Your task to perform on an android device: change the clock style Image 0: 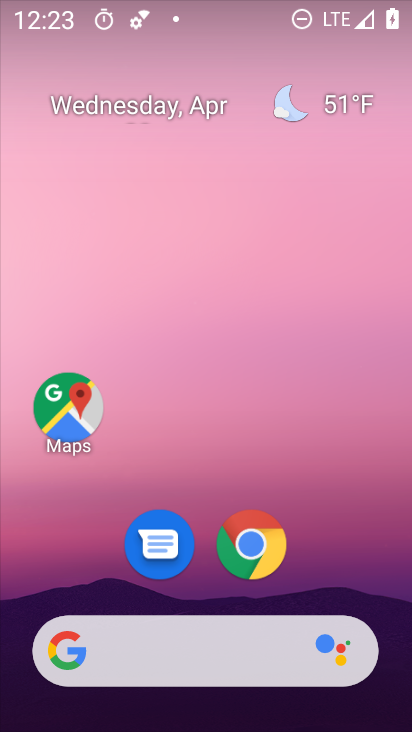
Step 0: drag from (359, 567) to (336, 194)
Your task to perform on an android device: change the clock style Image 1: 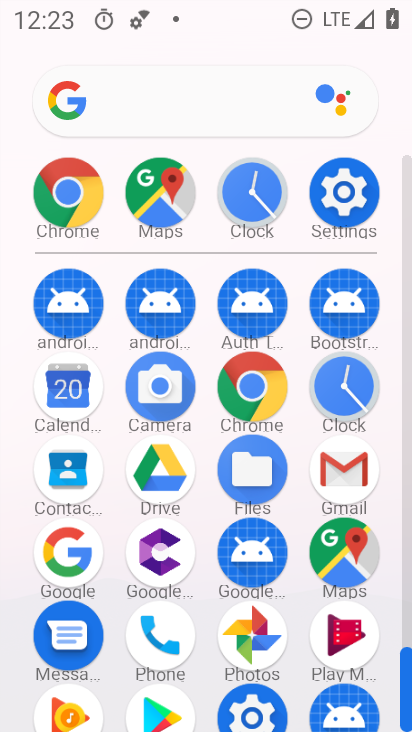
Step 1: click (346, 391)
Your task to perform on an android device: change the clock style Image 2: 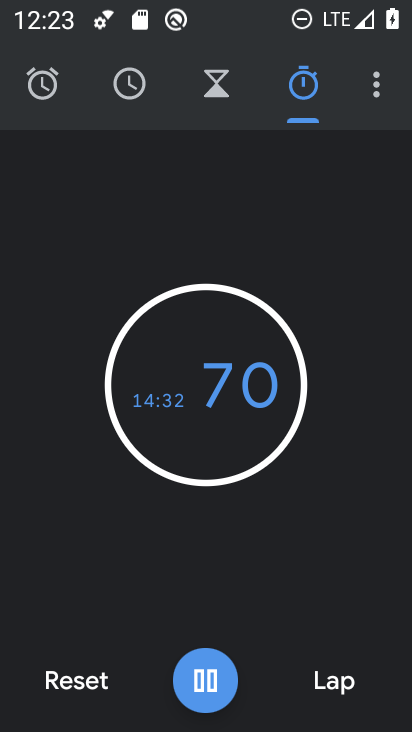
Step 2: click (377, 86)
Your task to perform on an android device: change the clock style Image 3: 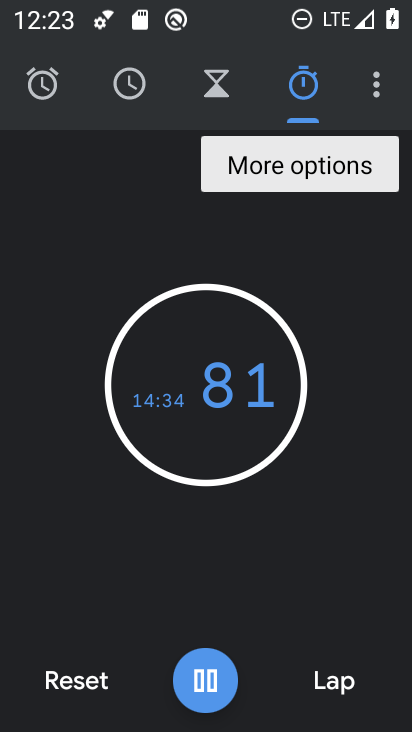
Step 3: click (377, 86)
Your task to perform on an android device: change the clock style Image 4: 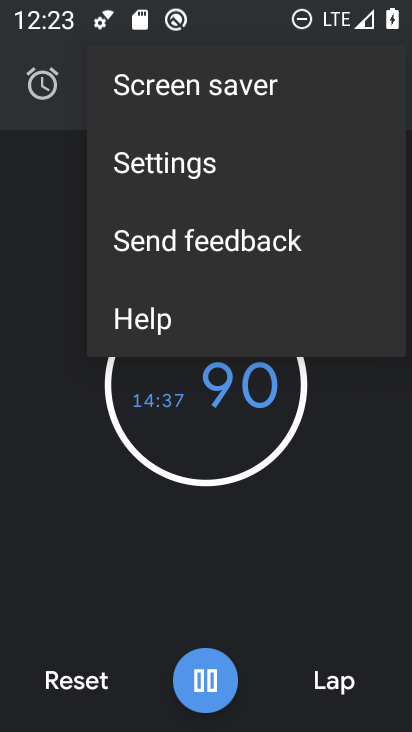
Step 4: click (193, 164)
Your task to perform on an android device: change the clock style Image 5: 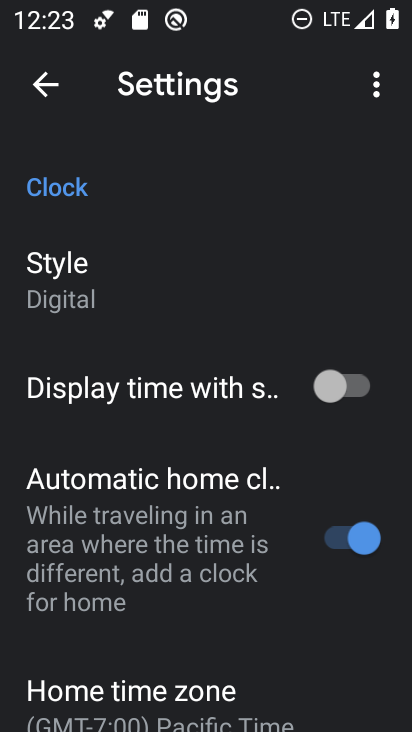
Step 5: drag from (287, 625) to (298, 486)
Your task to perform on an android device: change the clock style Image 6: 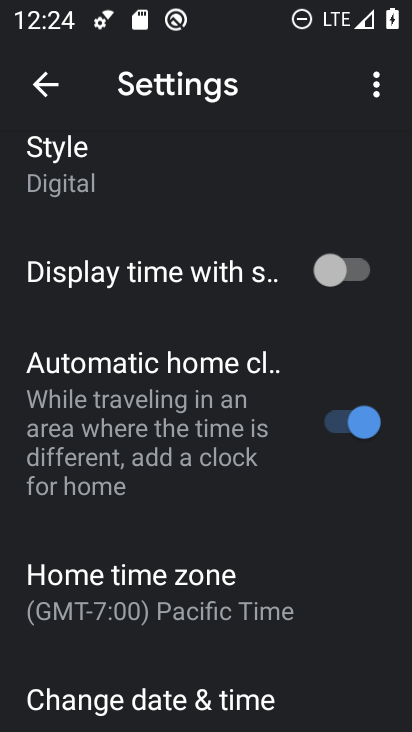
Step 6: drag from (327, 620) to (316, 516)
Your task to perform on an android device: change the clock style Image 7: 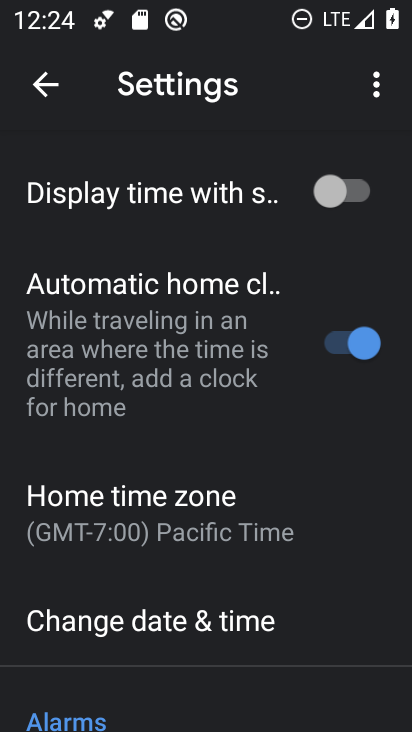
Step 7: drag from (322, 606) to (319, 503)
Your task to perform on an android device: change the clock style Image 8: 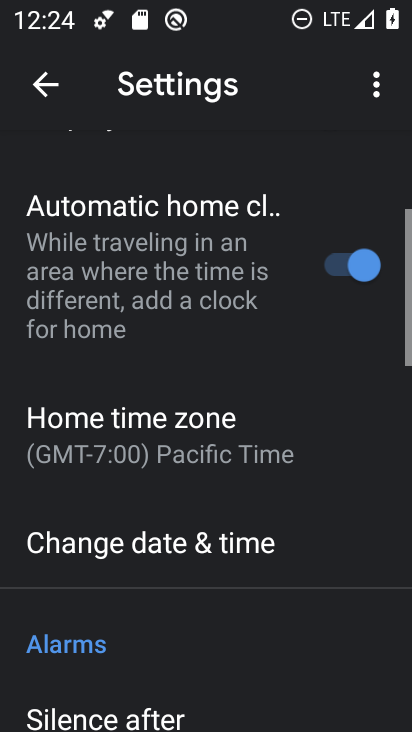
Step 8: drag from (323, 646) to (325, 534)
Your task to perform on an android device: change the clock style Image 9: 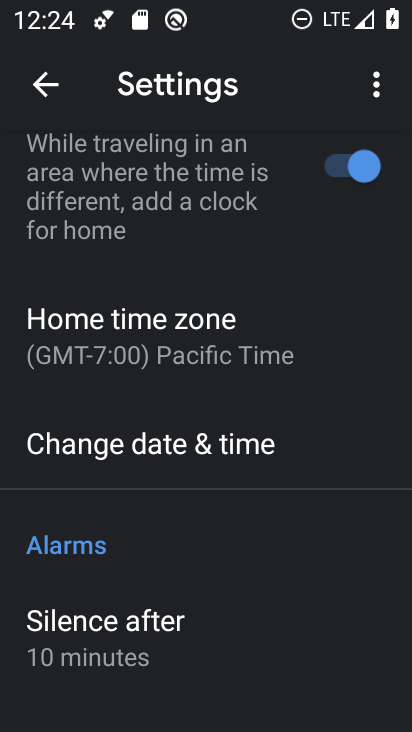
Step 9: drag from (312, 639) to (326, 501)
Your task to perform on an android device: change the clock style Image 10: 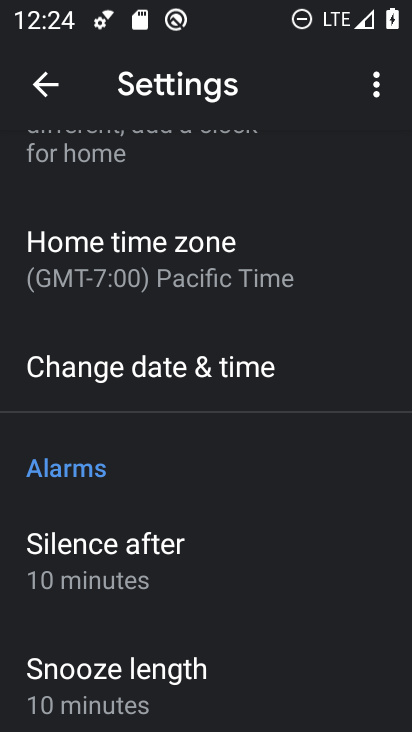
Step 10: drag from (326, 600) to (333, 453)
Your task to perform on an android device: change the clock style Image 11: 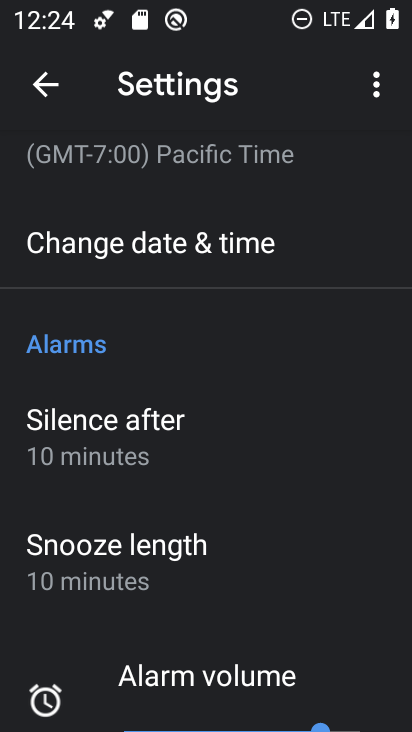
Step 11: drag from (345, 617) to (344, 474)
Your task to perform on an android device: change the clock style Image 12: 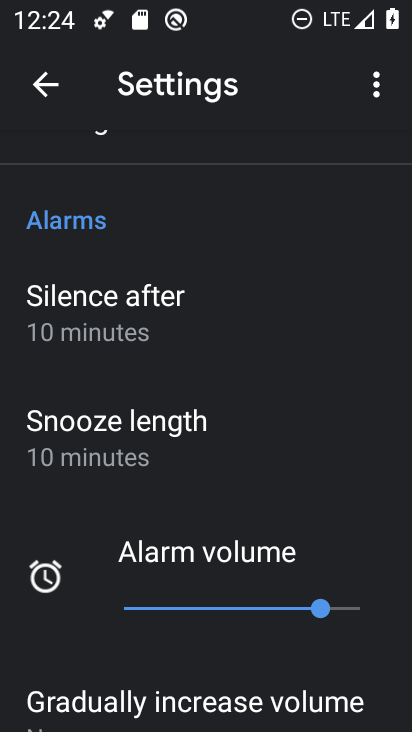
Step 12: drag from (371, 652) to (371, 525)
Your task to perform on an android device: change the clock style Image 13: 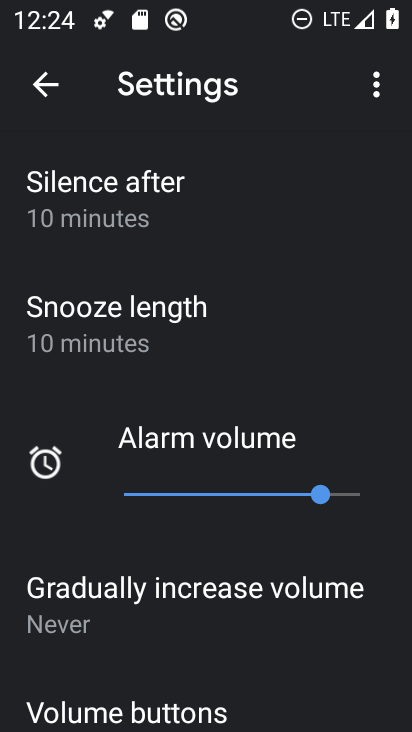
Step 13: drag from (363, 678) to (359, 540)
Your task to perform on an android device: change the clock style Image 14: 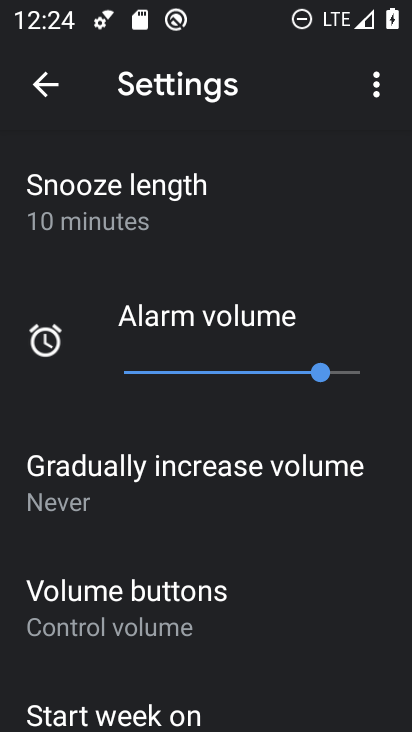
Step 14: drag from (334, 648) to (327, 526)
Your task to perform on an android device: change the clock style Image 15: 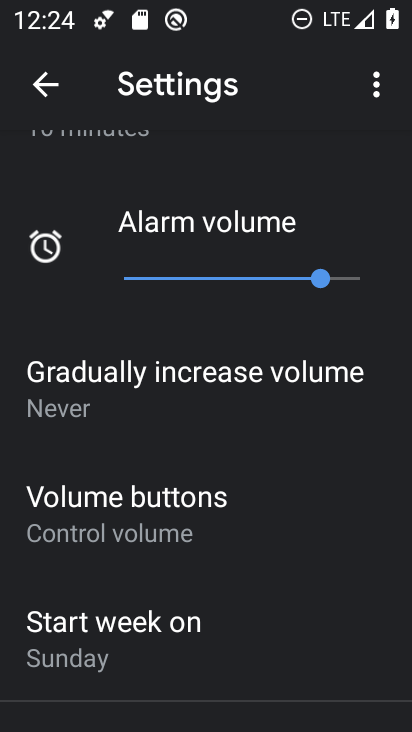
Step 15: drag from (337, 655) to (335, 536)
Your task to perform on an android device: change the clock style Image 16: 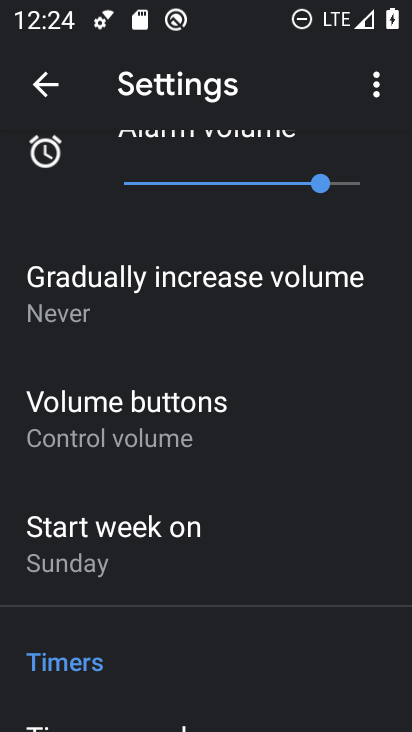
Step 16: drag from (339, 651) to (331, 495)
Your task to perform on an android device: change the clock style Image 17: 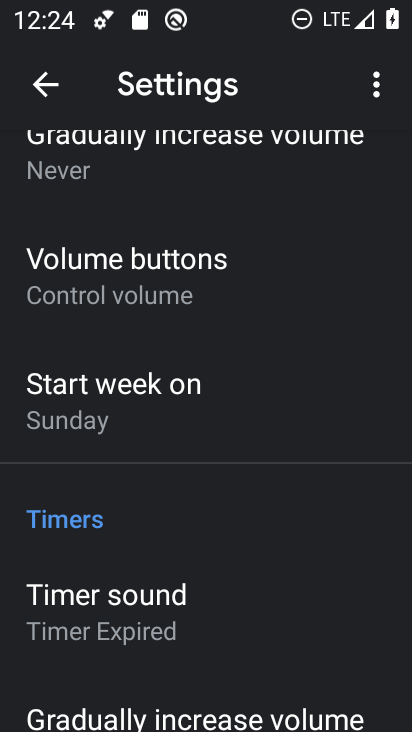
Step 17: drag from (307, 592) to (306, 448)
Your task to perform on an android device: change the clock style Image 18: 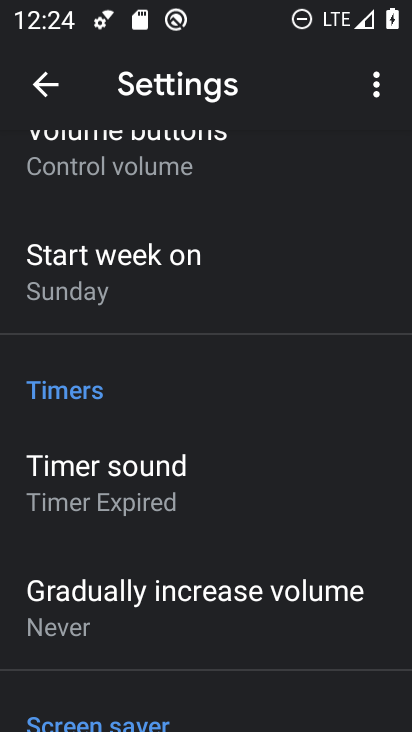
Step 18: drag from (333, 291) to (335, 454)
Your task to perform on an android device: change the clock style Image 19: 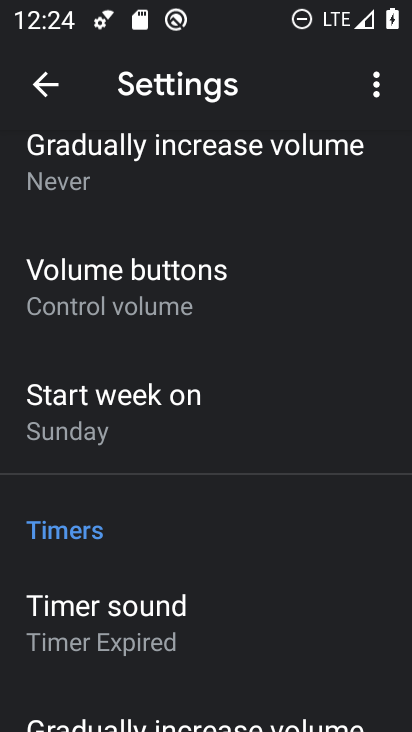
Step 19: drag from (348, 321) to (350, 466)
Your task to perform on an android device: change the clock style Image 20: 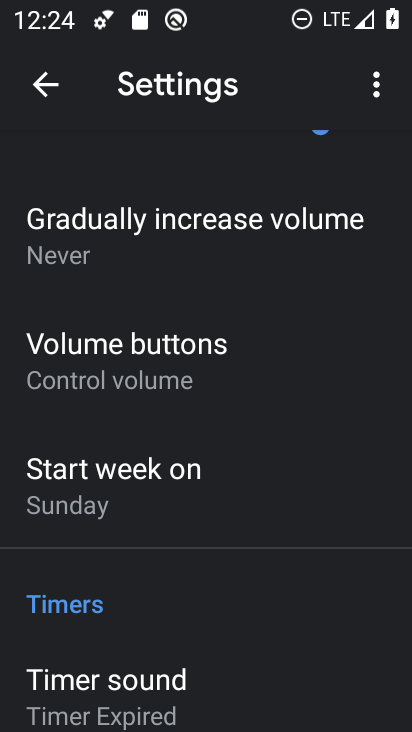
Step 20: drag from (364, 332) to (343, 459)
Your task to perform on an android device: change the clock style Image 21: 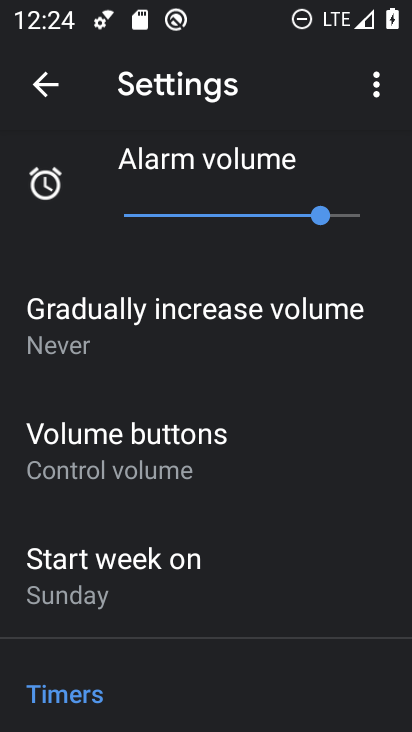
Step 21: drag from (380, 286) to (363, 466)
Your task to perform on an android device: change the clock style Image 22: 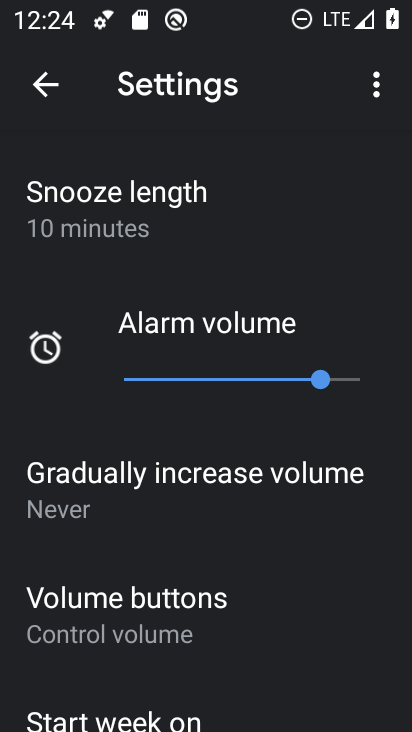
Step 22: drag from (384, 278) to (379, 455)
Your task to perform on an android device: change the clock style Image 23: 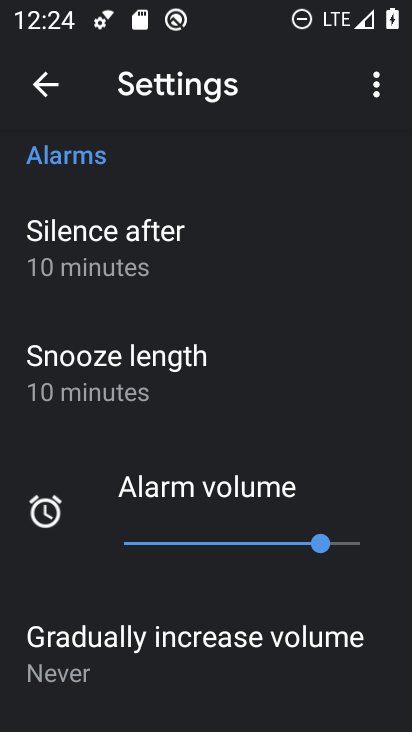
Step 23: drag from (382, 237) to (383, 413)
Your task to perform on an android device: change the clock style Image 24: 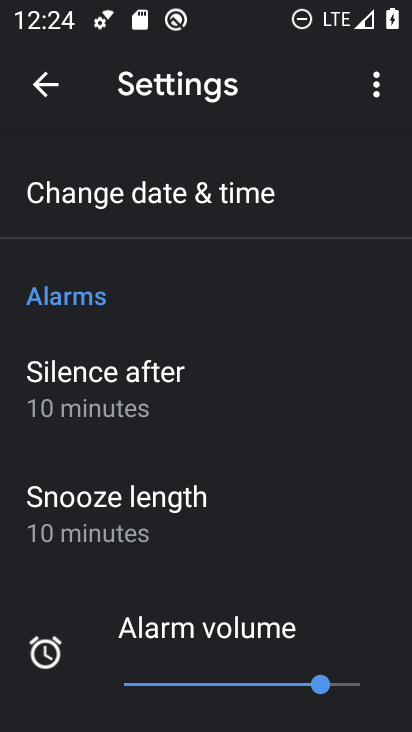
Step 24: drag from (349, 245) to (350, 414)
Your task to perform on an android device: change the clock style Image 25: 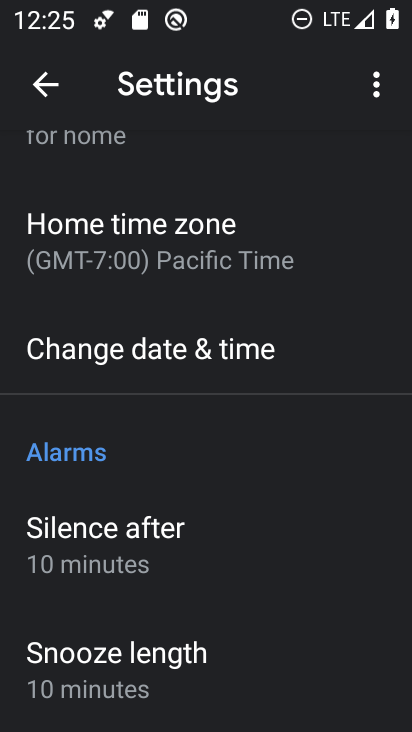
Step 25: drag from (353, 242) to (336, 419)
Your task to perform on an android device: change the clock style Image 26: 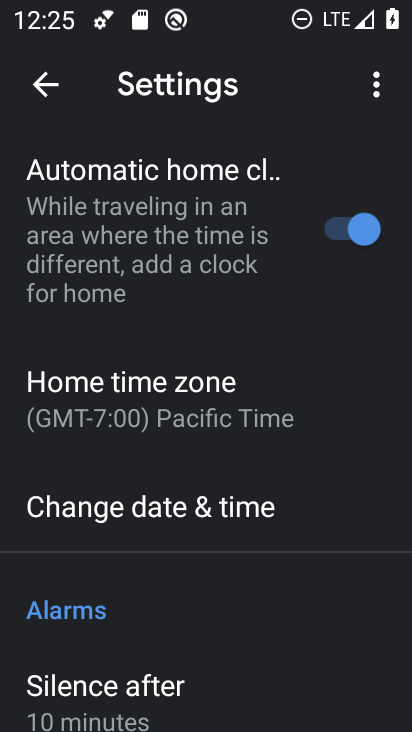
Step 26: drag from (291, 228) to (283, 391)
Your task to perform on an android device: change the clock style Image 27: 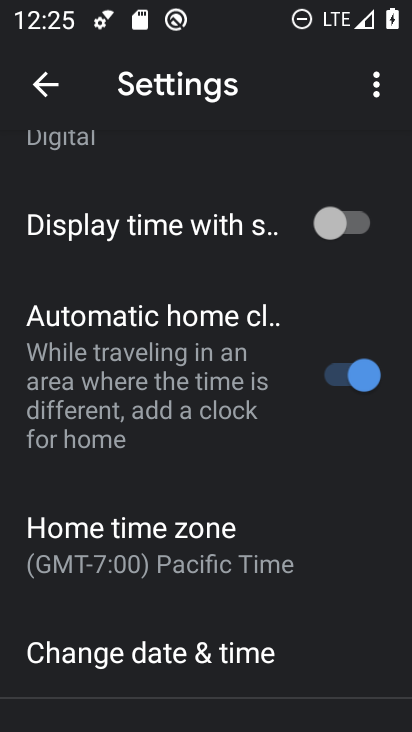
Step 27: drag from (279, 190) to (260, 361)
Your task to perform on an android device: change the clock style Image 28: 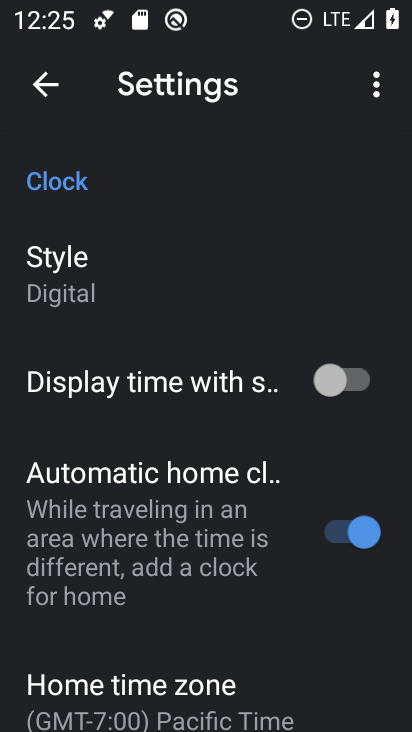
Step 28: click (48, 287)
Your task to perform on an android device: change the clock style Image 29: 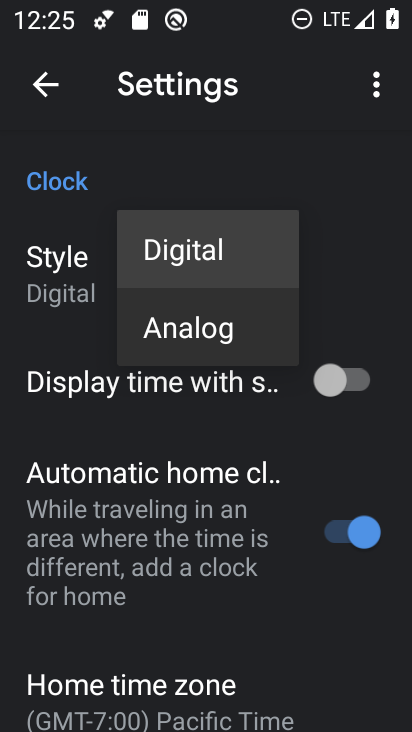
Step 29: click (179, 323)
Your task to perform on an android device: change the clock style Image 30: 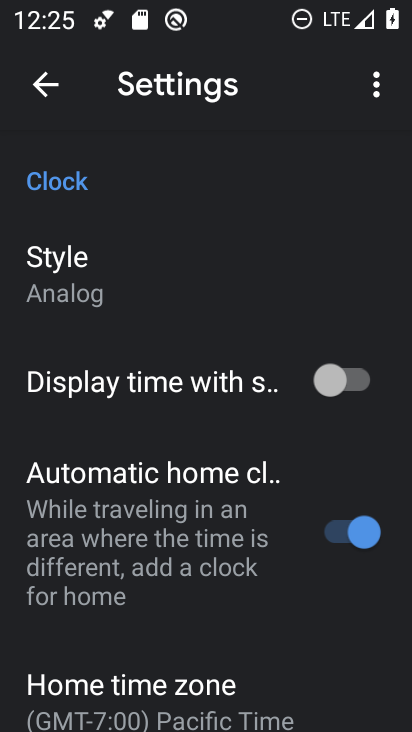
Step 30: task complete